Your task to perform on an android device: Search for Mexican restaurants on Maps Image 0: 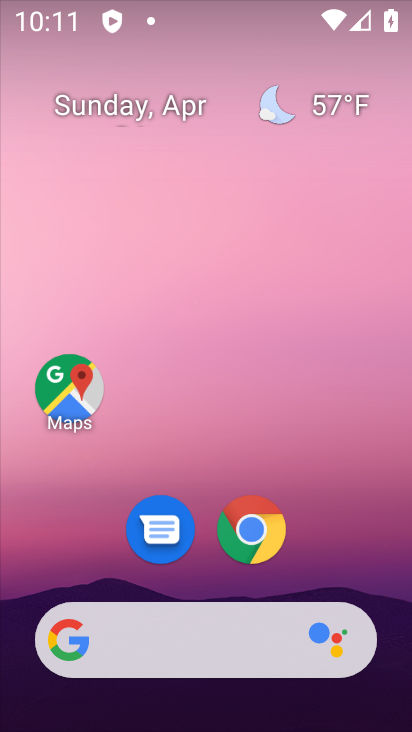
Step 0: click (63, 384)
Your task to perform on an android device: Search for Mexican restaurants on Maps Image 1: 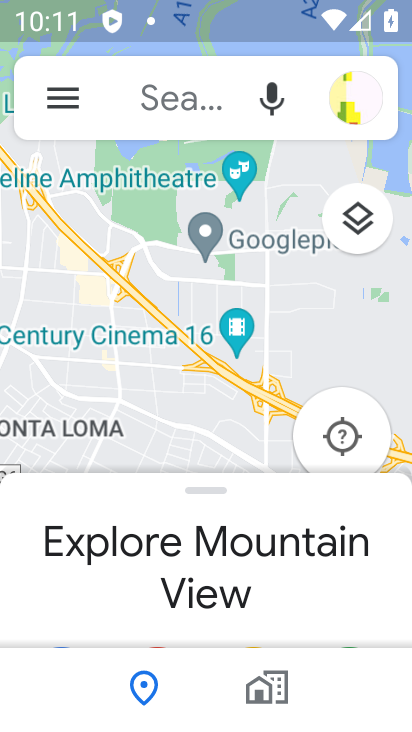
Step 1: click (148, 107)
Your task to perform on an android device: Search for Mexican restaurants on Maps Image 2: 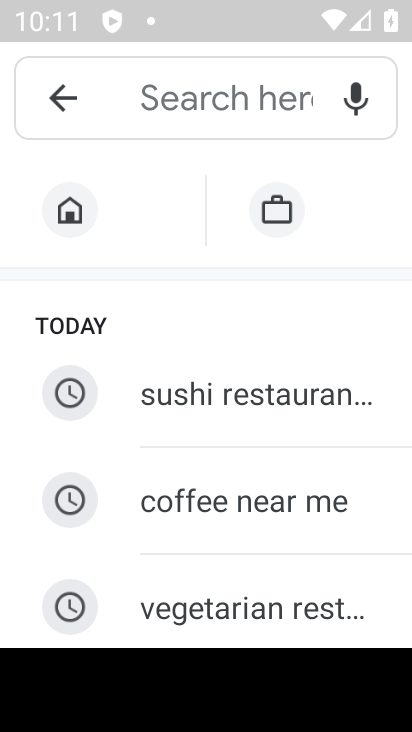
Step 2: click (188, 83)
Your task to perform on an android device: Search for Mexican restaurants on Maps Image 3: 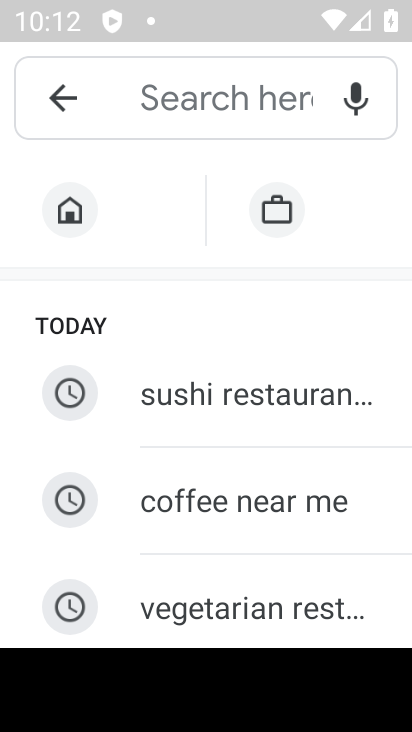
Step 3: type "Mexican restaurants"
Your task to perform on an android device: Search for Mexican restaurants on Maps Image 4: 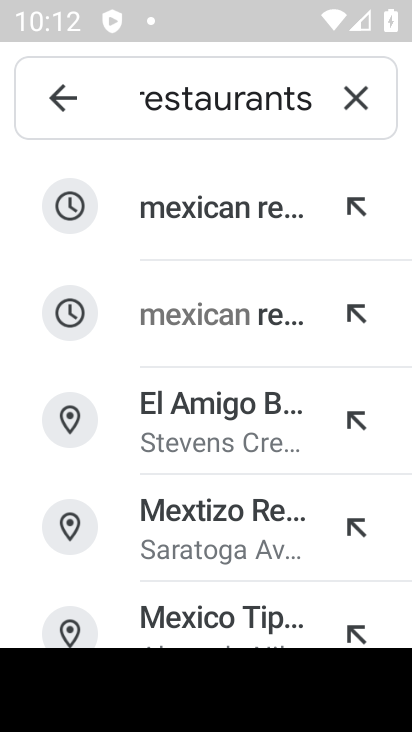
Step 4: click (253, 214)
Your task to perform on an android device: Search for Mexican restaurants on Maps Image 5: 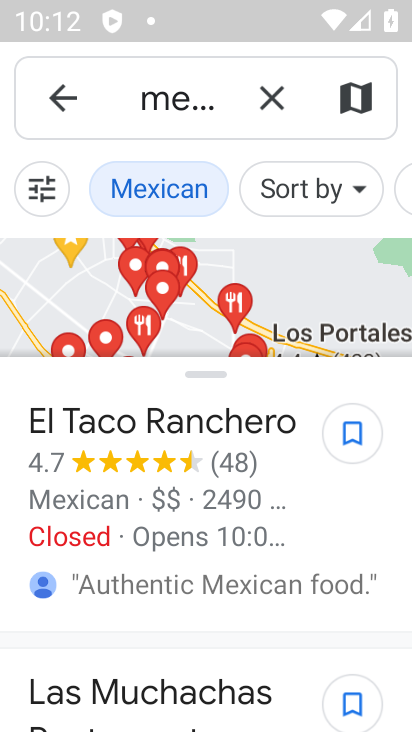
Step 5: task complete